Your task to perform on an android device: Open battery settings Image 0: 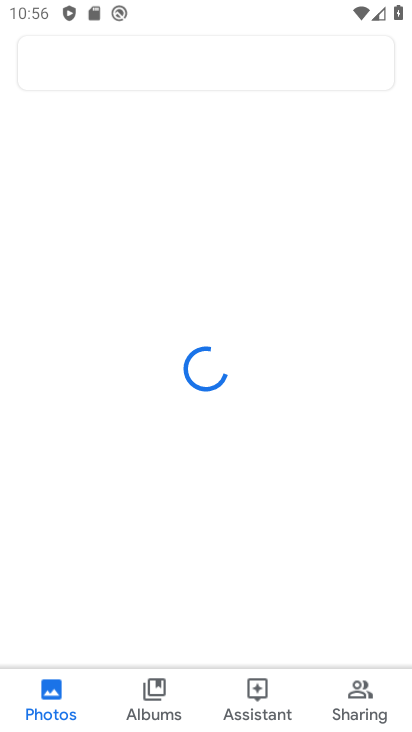
Step 0: press home button
Your task to perform on an android device: Open battery settings Image 1: 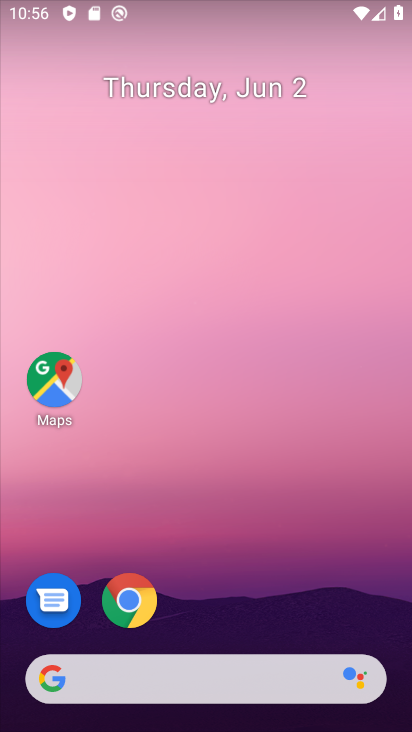
Step 1: drag from (253, 599) to (299, 195)
Your task to perform on an android device: Open battery settings Image 2: 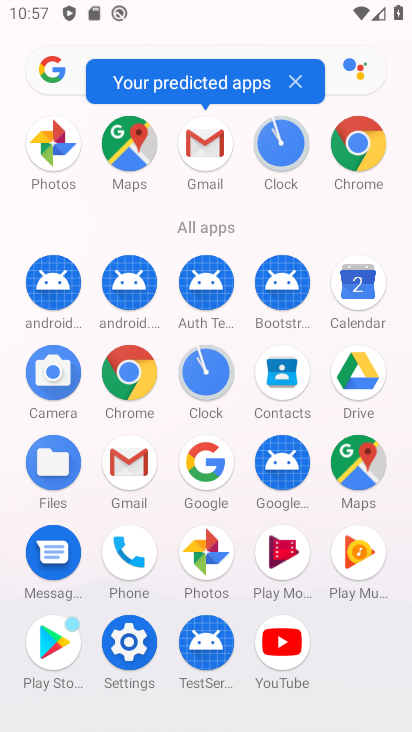
Step 2: click (131, 625)
Your task to perform on an android device: Open battery settings Image 3: 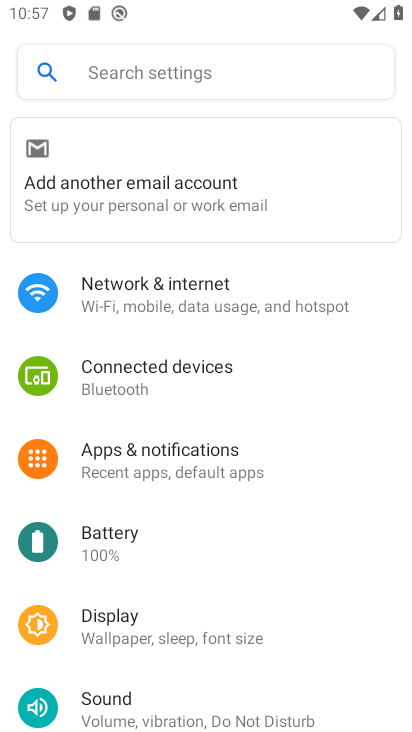
Step 3: drag from (185, 653) to (190, 511)
Your task to perform on an android device: Open battery settings Image 4: 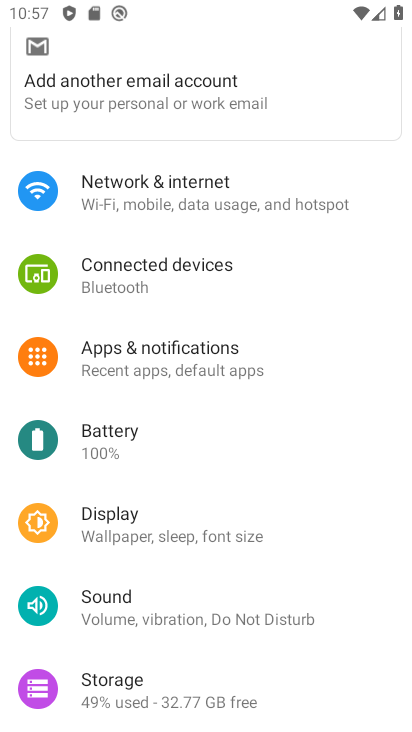
Step 4: click (149, 447)
Your task to perform on an android device: Open battery settings Image 5: 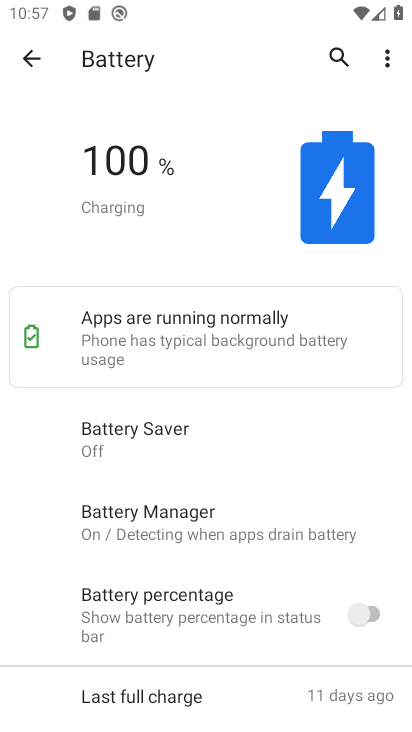
Step 5: task complete